Your task to perform on an android device: read, delete, or share a saved page in the chrome app Image 0: 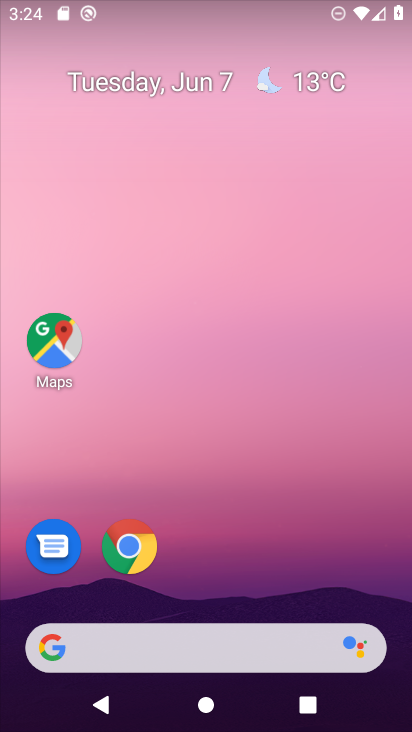
Step 0: click (132, 553)
Your task to perform on an android device: read, delete, or share a saved page in the chrome app Image 1: 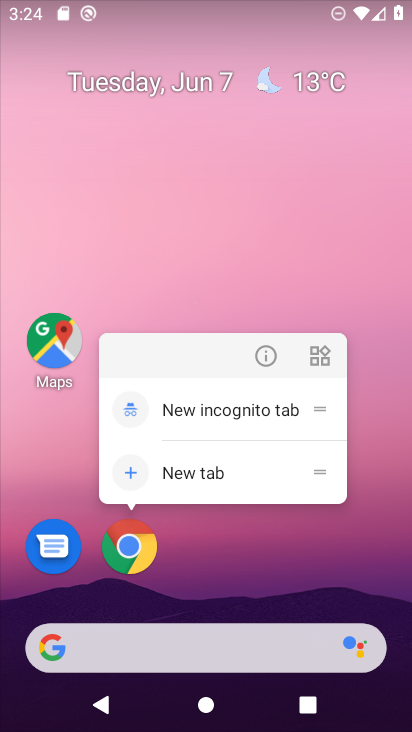
Step 1: click (148, 541)
Your task to perform on an android device: read, delete, or share a saved page in the chrome app Image 2: 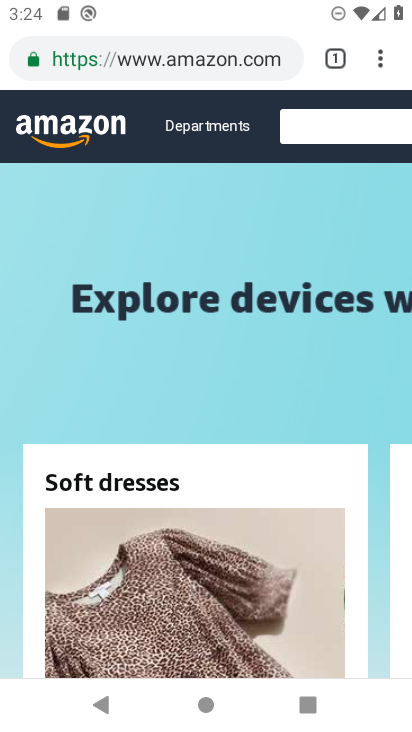
Step 2: click (328, 68)
Your task to perform on an android device: read, delete, or share a saved page in the chrome app Image 3: 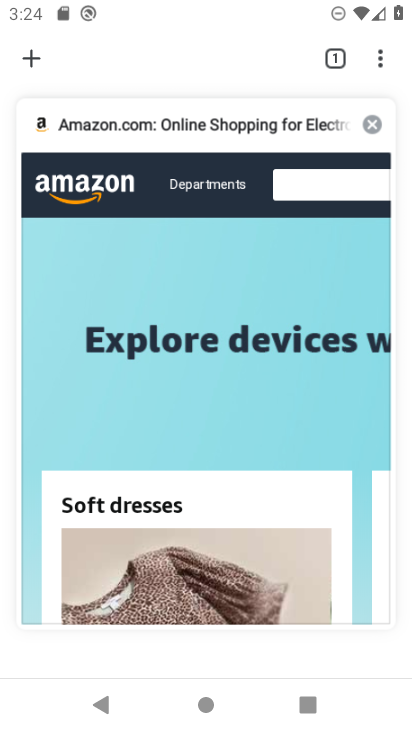
Step 3: click (380, 124)
Your task to perform on an android device: read, delete, or share a saved page in the chrome app Image 4: 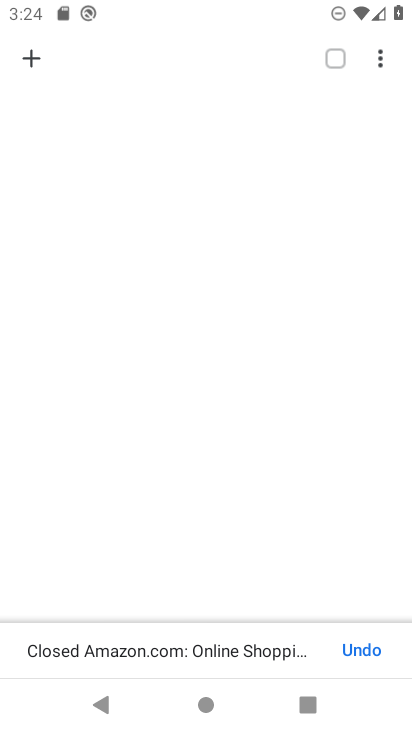
Step 4: click (26, 58)
Your task to perform on an android device: read, delete, or share a saved page in the chrome app Image 5: 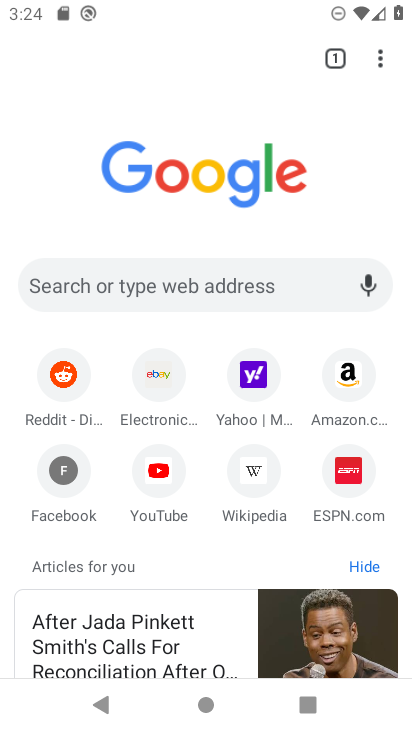
Step 5: click (74, 485)
Your task to perform on an android device: read, delete, or share a saved page in the chrome app Image 6: 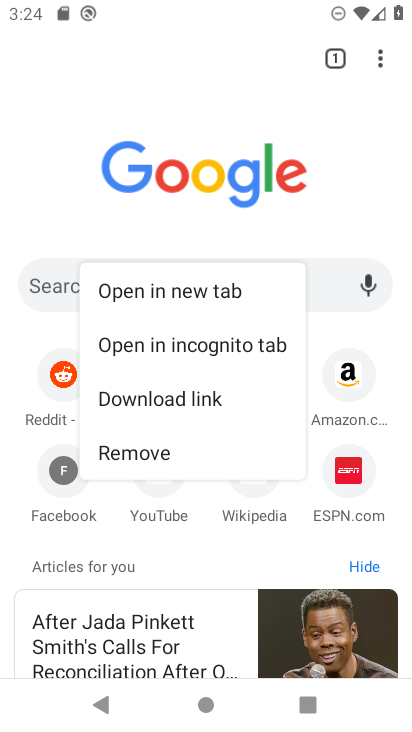
Step 6: click (105, 447)
Your task to perform on an android device: read, delete, or share a saved page in the chrome app Image 7: 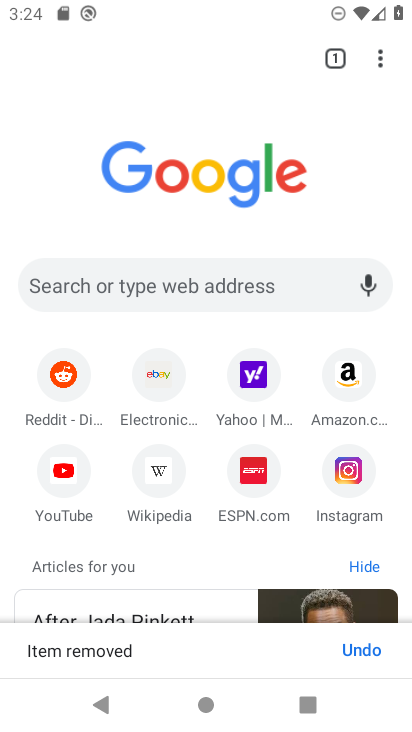
Step 7: task complete